Your task to perform on an android device: Go to ESPN.com Image 0: 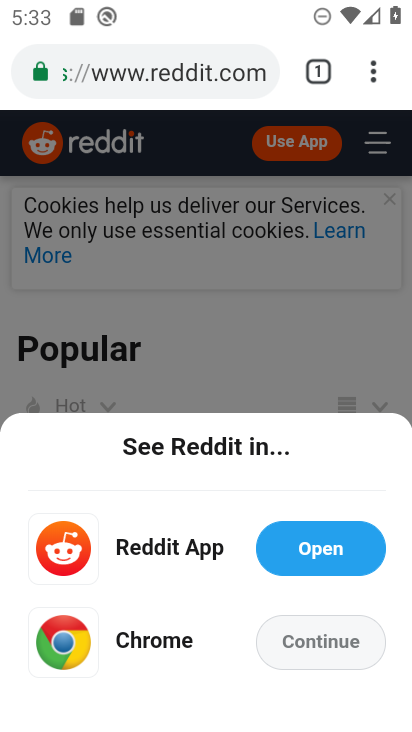
Step 0: press home button
Your task to perform on an android device: Go to ESPN.com Image 1: 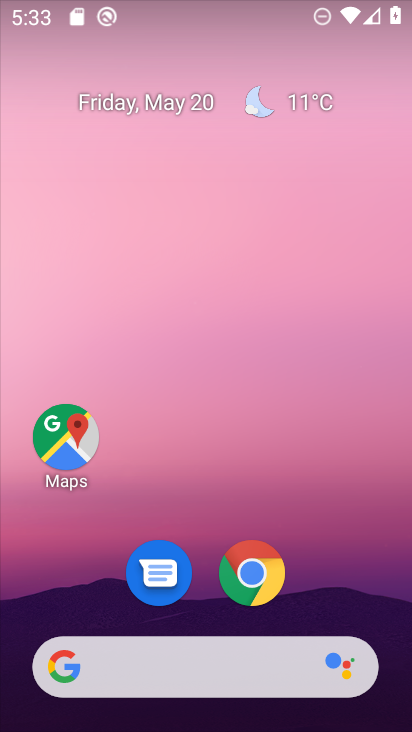
Step 1: click (262, 574)
Your task to perform on an android device: Go to ESPN.com Image 2: 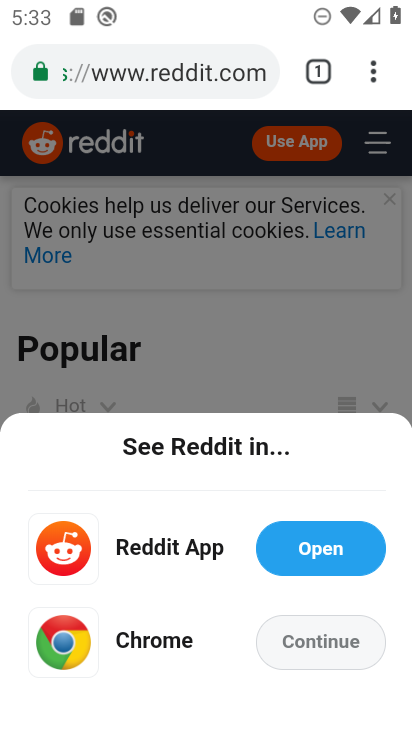
Step 2: click (327, 64)
Your task to perform on an android device: Go to ESPN.com Image 3: 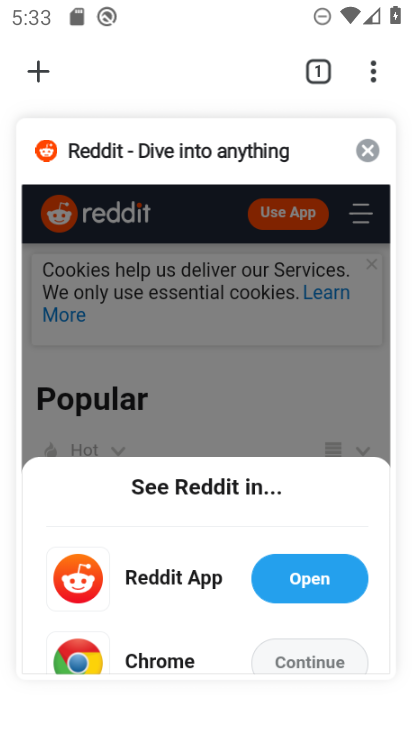
Step 3: click (36, 69)
Your task to perform on an android device: Go to ESPN.com Image 4: 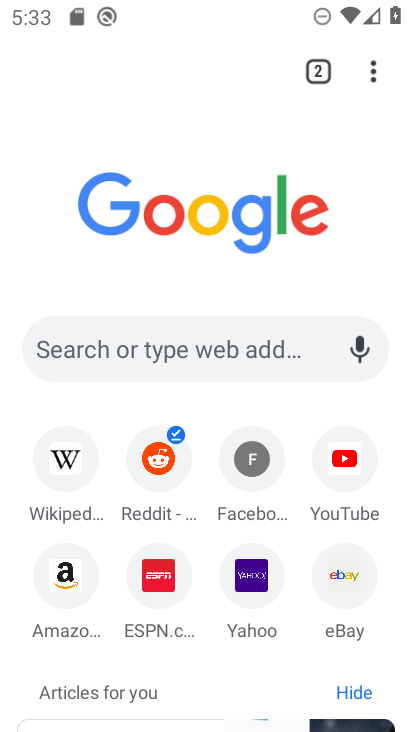
Step 4: click (161, 580)
Your task to perform on an android device: Go to ESPN.com Image 5: 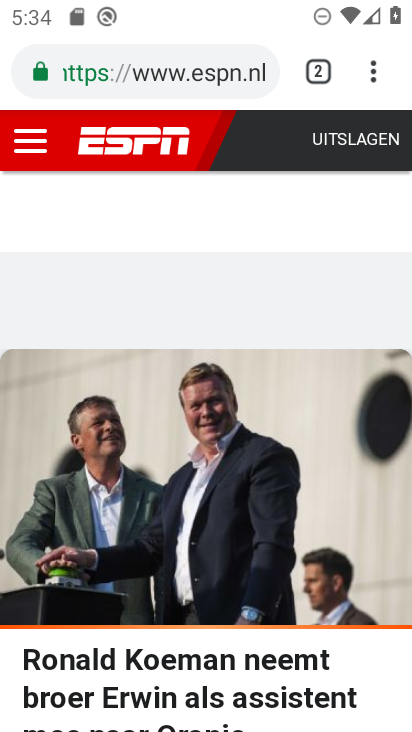
Step 5: task complete